Your task to perform on an android device: Open the phone app and click the voicemail tab. Image 0: 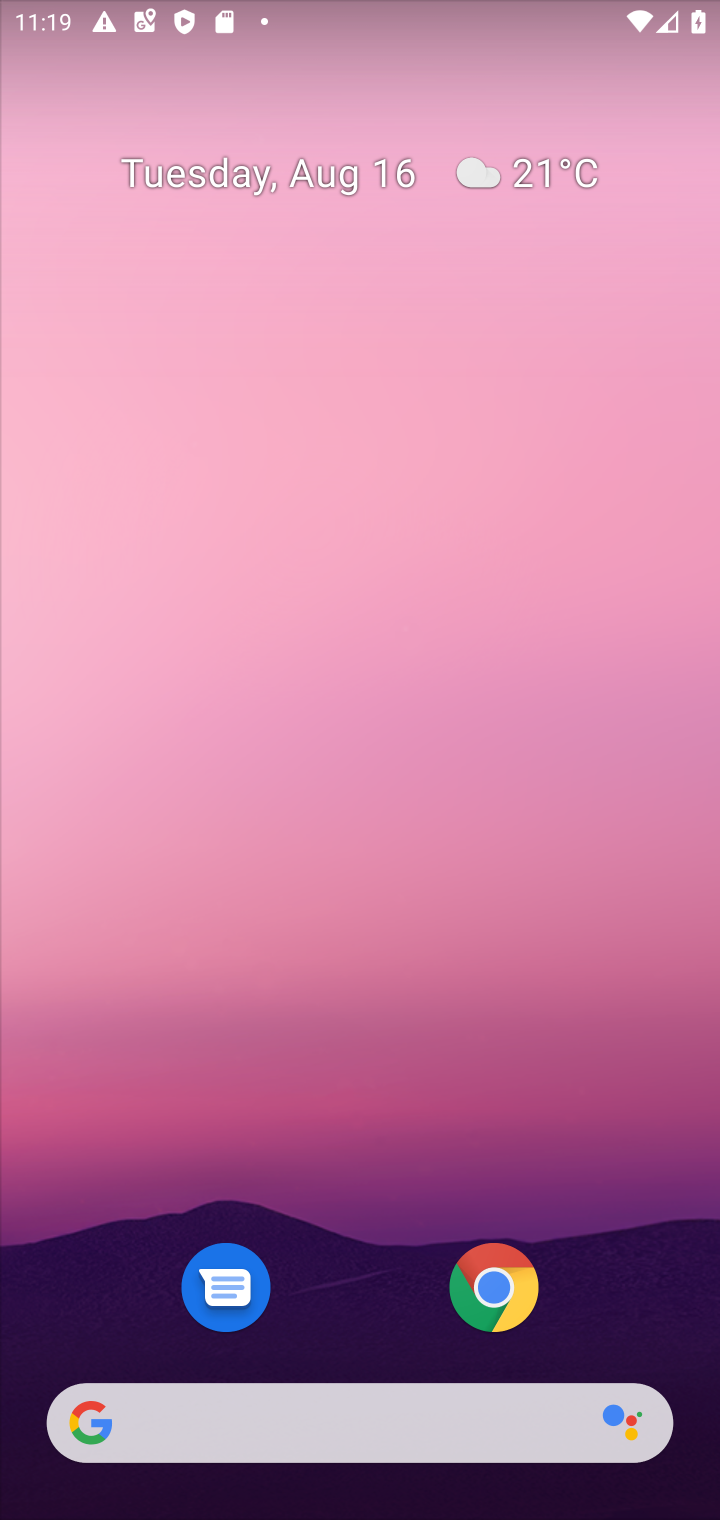
Step 0: drag from (677, 1347) to (561, 203)
Your task to perform on an android device: Open the phone app and click the voicemail tab. Image 1: 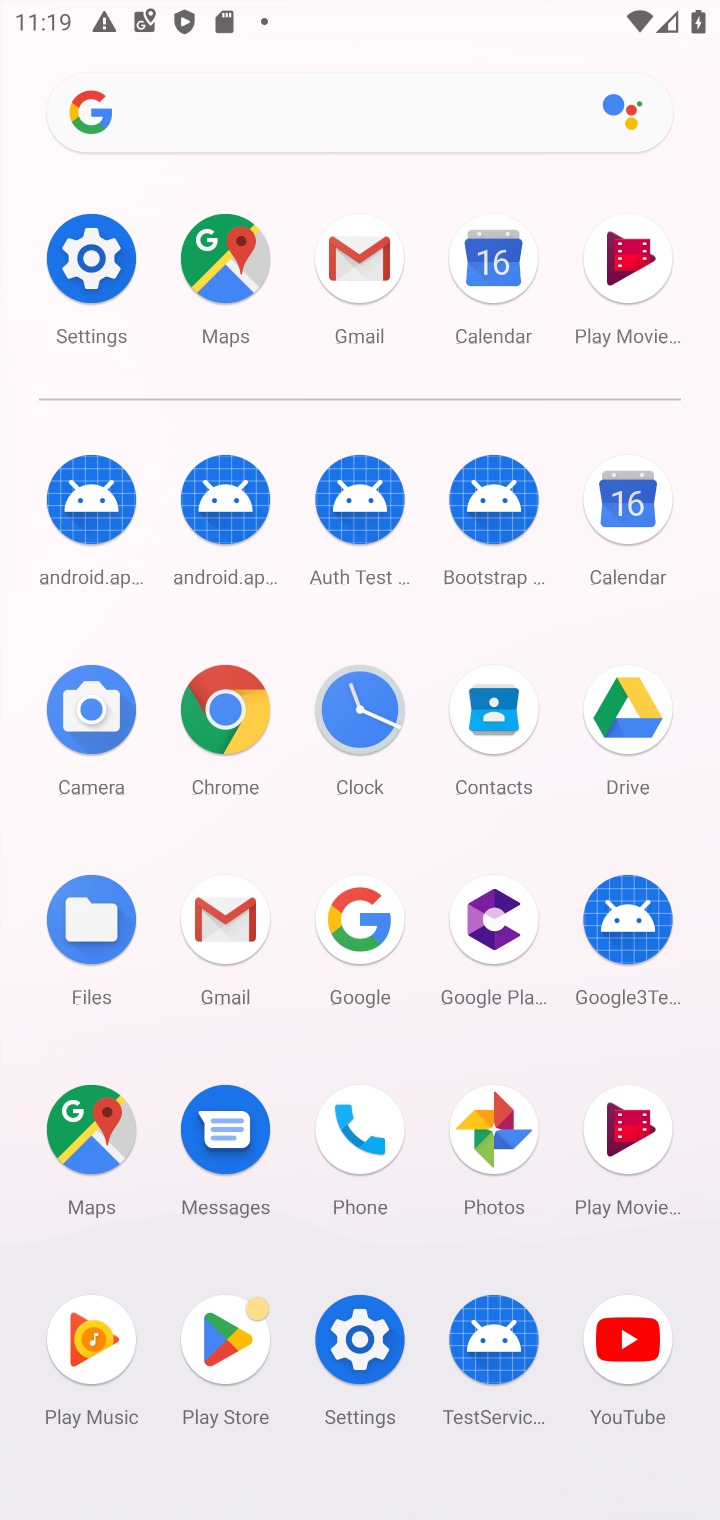
Step 1: click (348, 1132)
Your task to perform on an android device: Open the phone app and click the voicemail tab. Image 2: 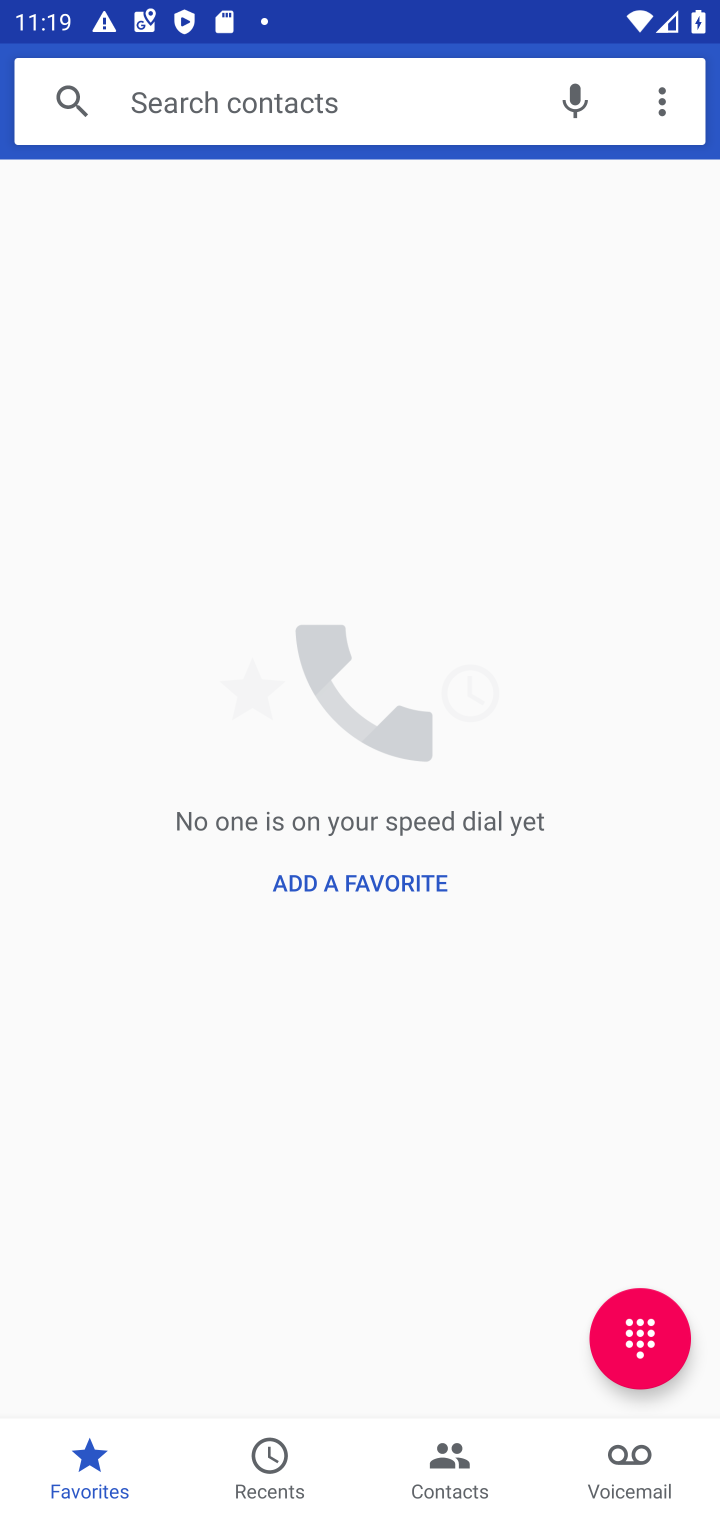
Step 2: click (642, 1468)
Your task to perform on an android device: Open the phone app and click the voicemail tab. Image 3: 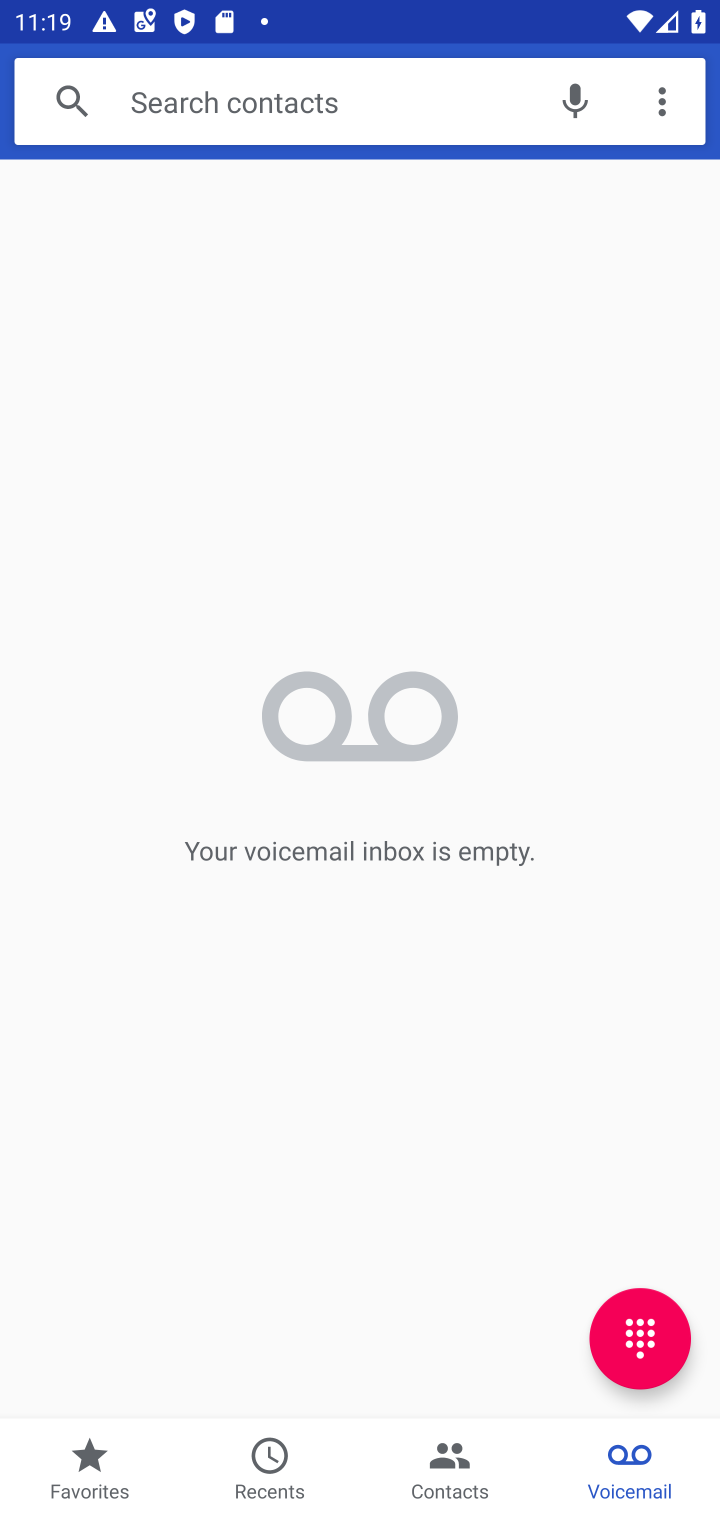
Step 3: task complete